Your task to perform on an android device: turn on sleep mode Image 0: 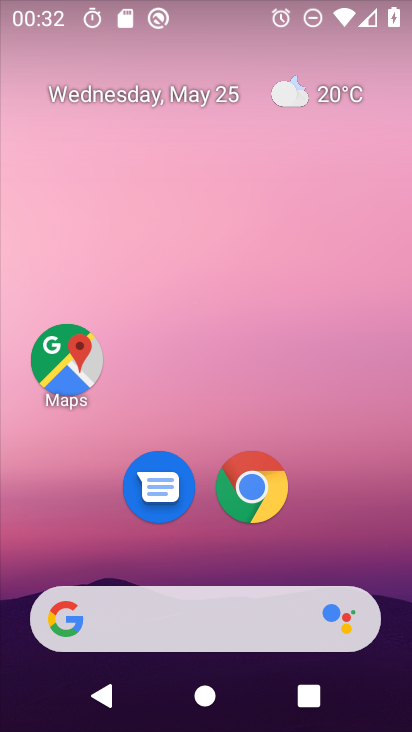
Step 0: drag from (369, 569) to (343, 14)
Your task to perform on an android device: turn on sleep mode Image 1: 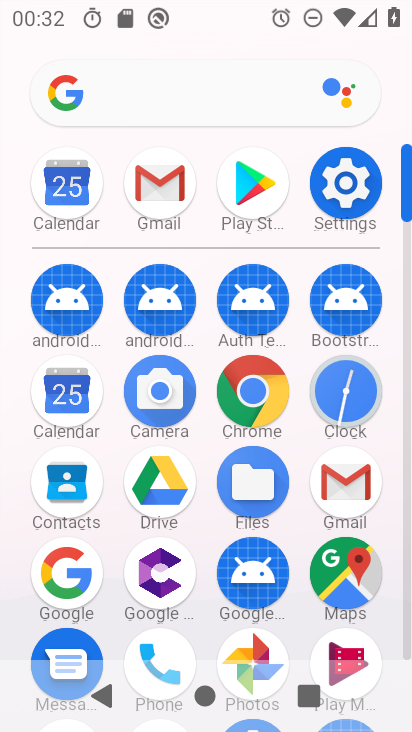
Step 1: click (337, 192)
Your task to perform on an android device: turn on sleep mode Image 2: 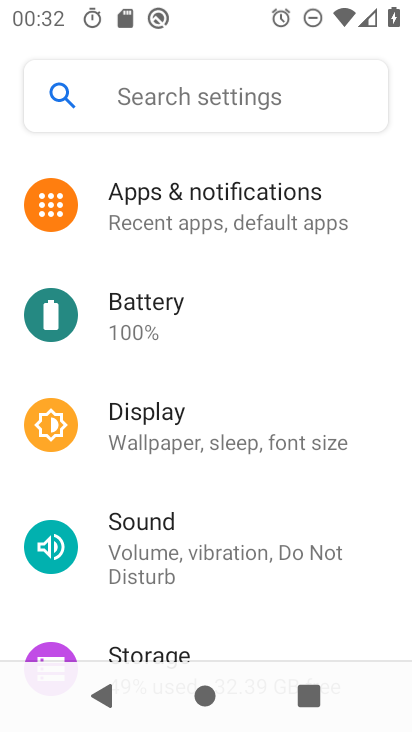
Step 2: click (137, 438)
Your task to perform on an android device: turn on sleep mode Image 3: 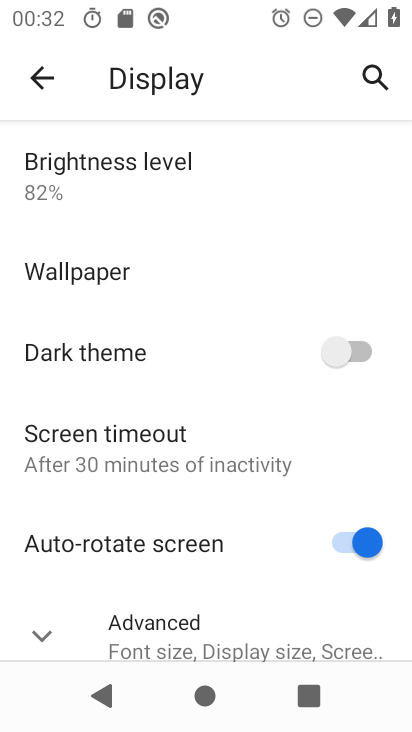
Step 3: drag from (69, 608) to (83, 442)
Your task to perform on an android device: turn on sleep mode Image 4: 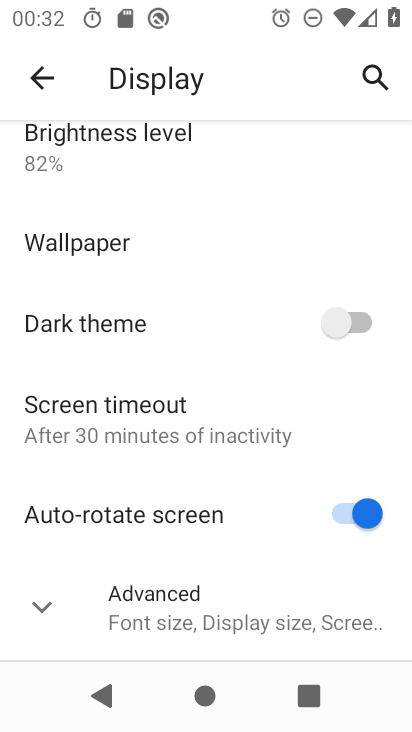
Step 4: click (40, 608)
Your task to perform on an android device: turn on sleep mode Image 5: 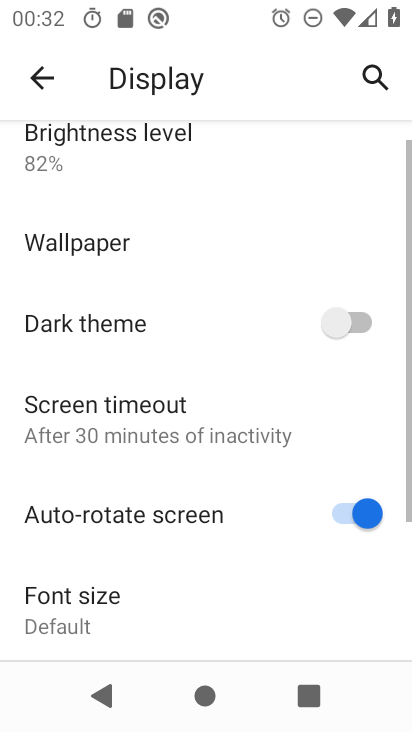
Step 5: task complete